Your task to perform on an android device: Go to Maps Image 0: 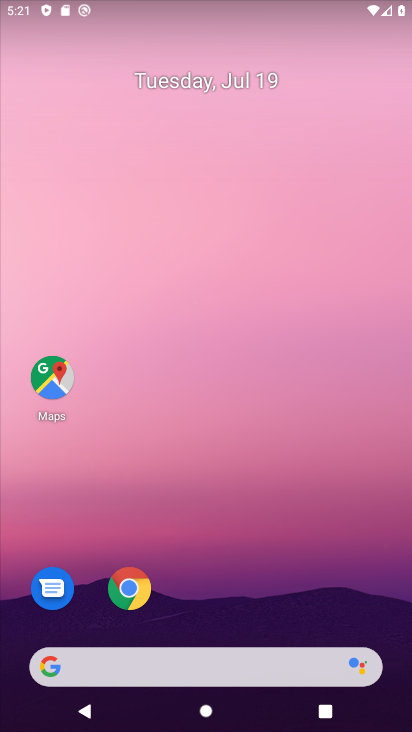
Step 0: click (47, 380)
Your task to perform on an android device: Go to Maps Image 1: 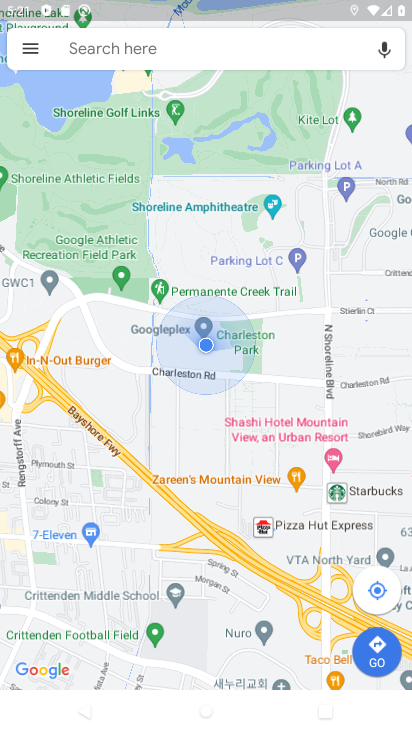
Step 1: task complete